Your task to perform on an android device: Add alienware area 51 to the cart on bestbuy.com, then select checkout. Image 0: 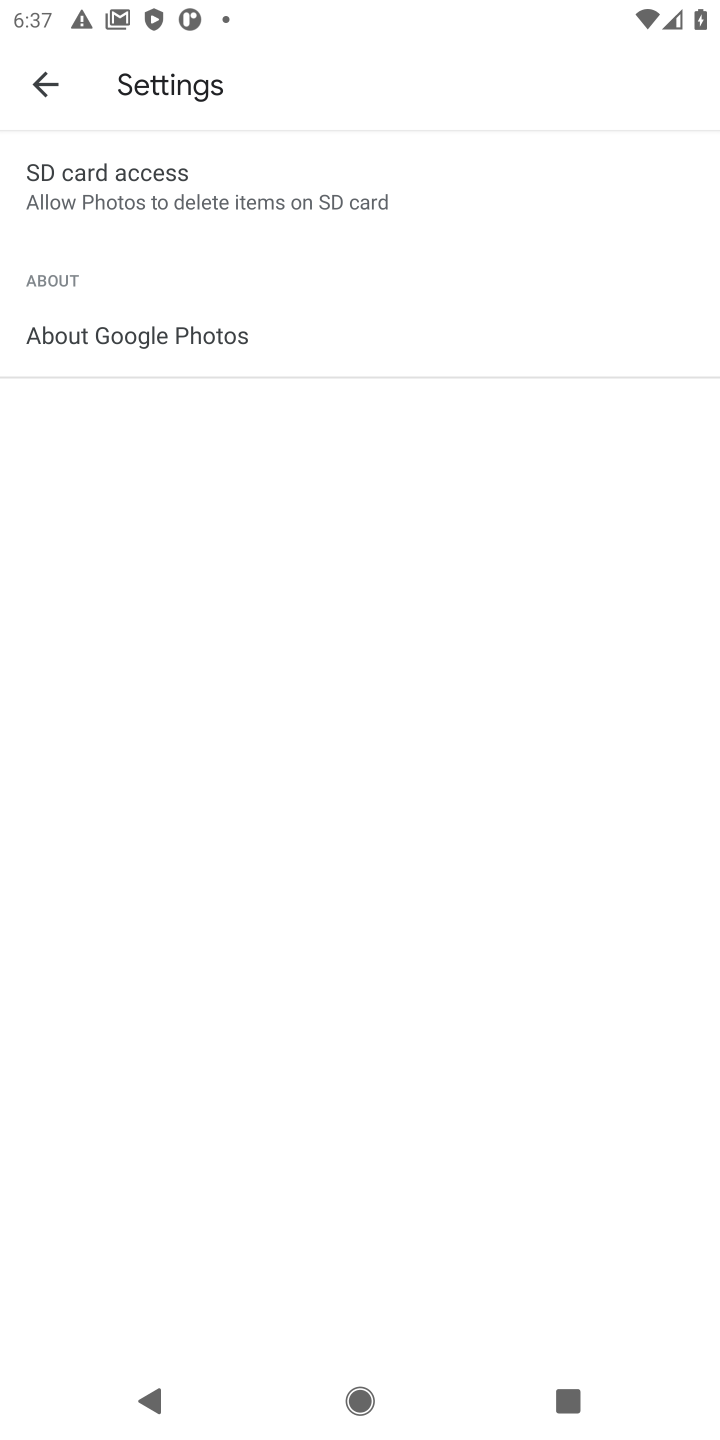
Step 0: press home button
Your task to perform on an android device: Add alienware area 51 to the cart on bestbuy.com, then select checkout. Image 1: 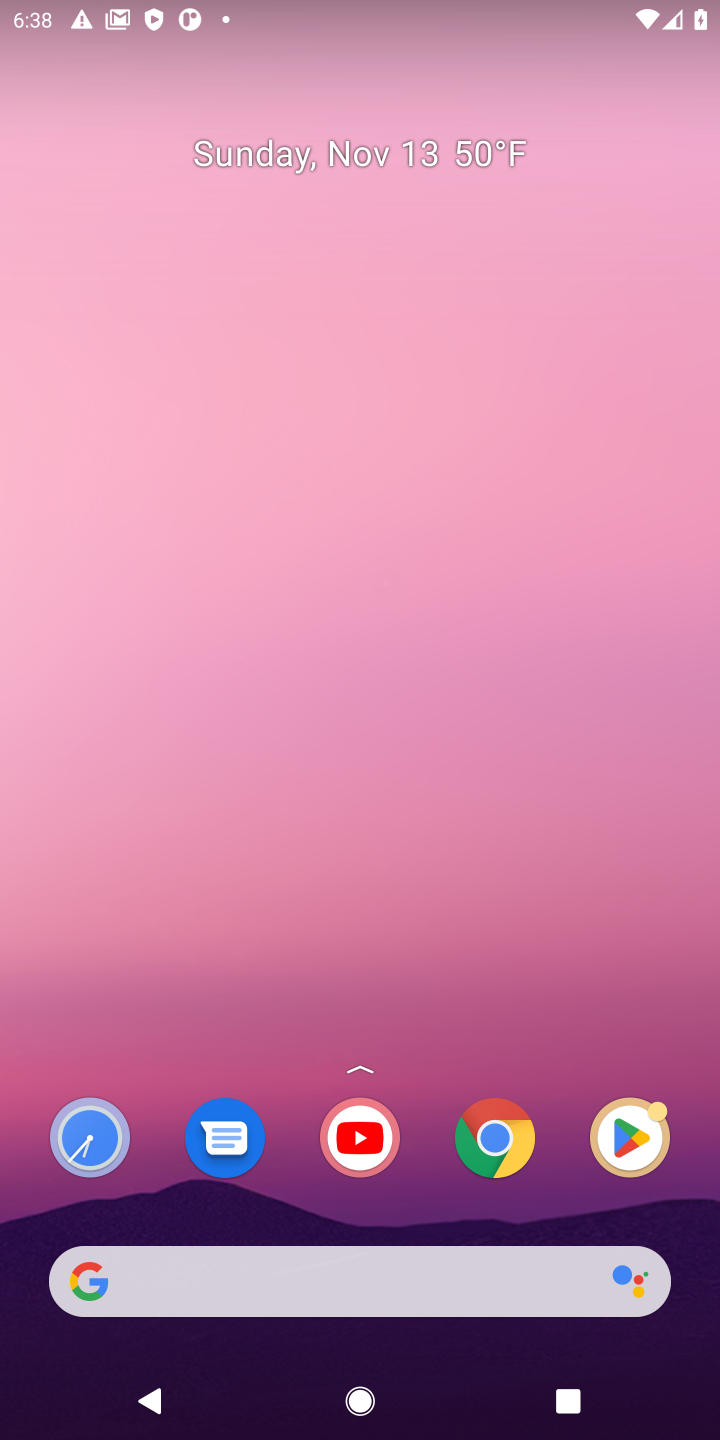
Step 1: drag from (184, 857) to (191, 263)
Your task to perform on an android device: Add alienware area 51 to the cart on bestbuy.com, then select checkout. Image 2: 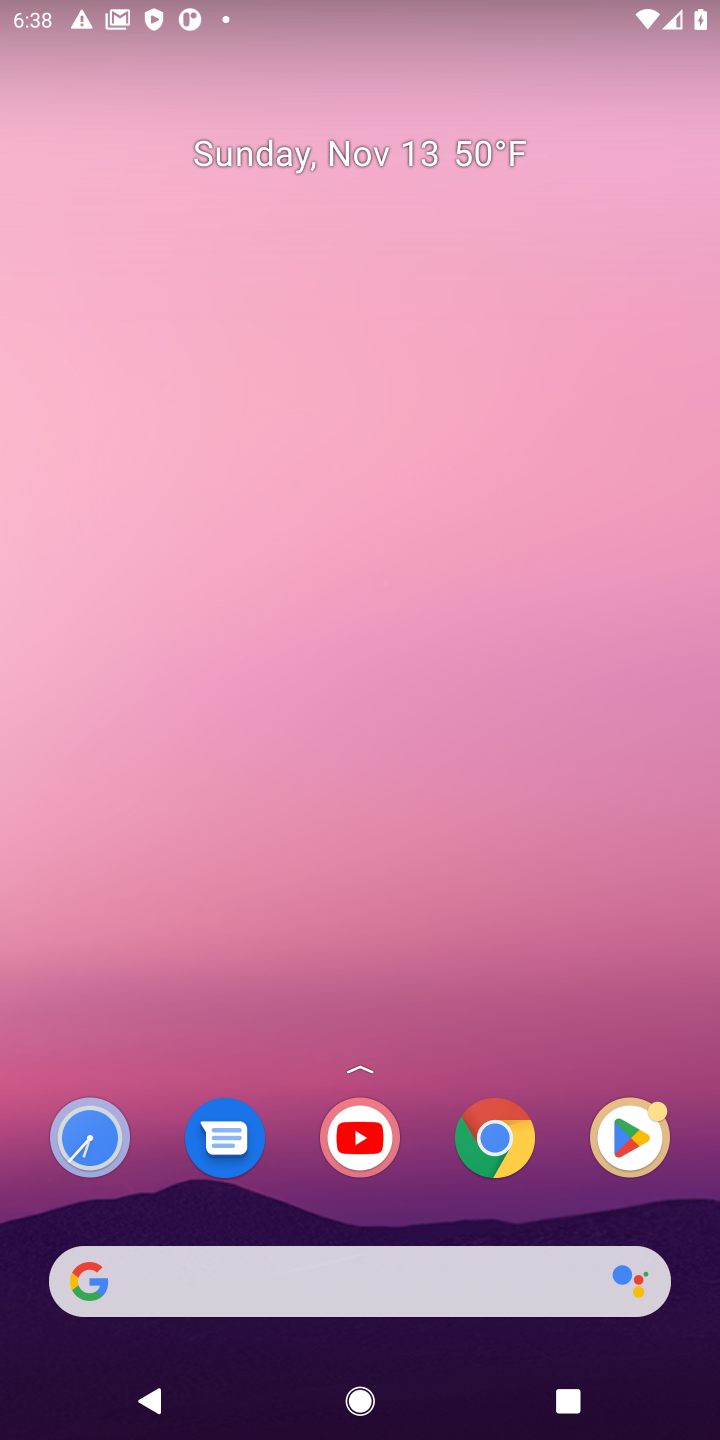
Step 2: drag from (416, 990) to (443, 107)
Your task to perform on an android device: Add alienware area 51 to the cart on bestbuy.com, then select checkout. Image 3: 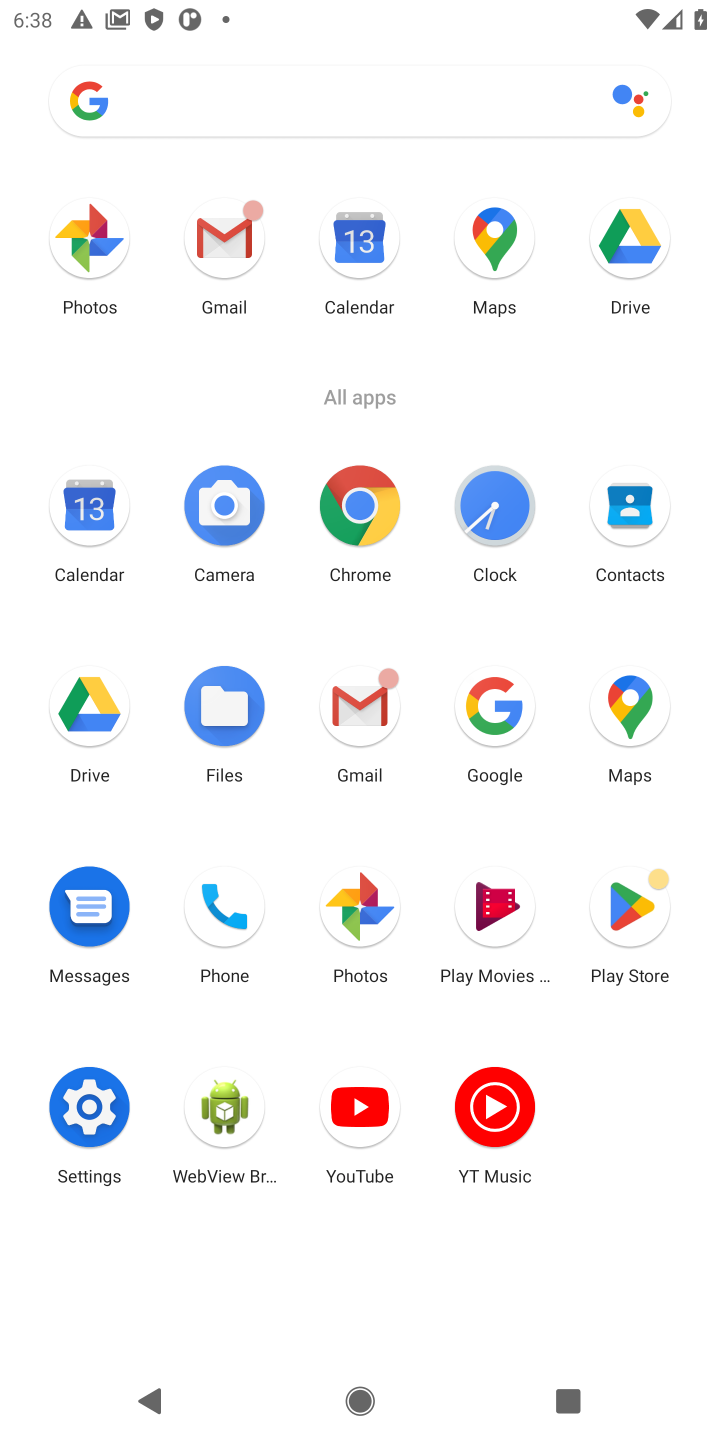
Step 3: click (340, 492)
Your task to perform on an android device: Add alienware area 51 to the cart on bestbuy.com, then select checkout. Image 4: 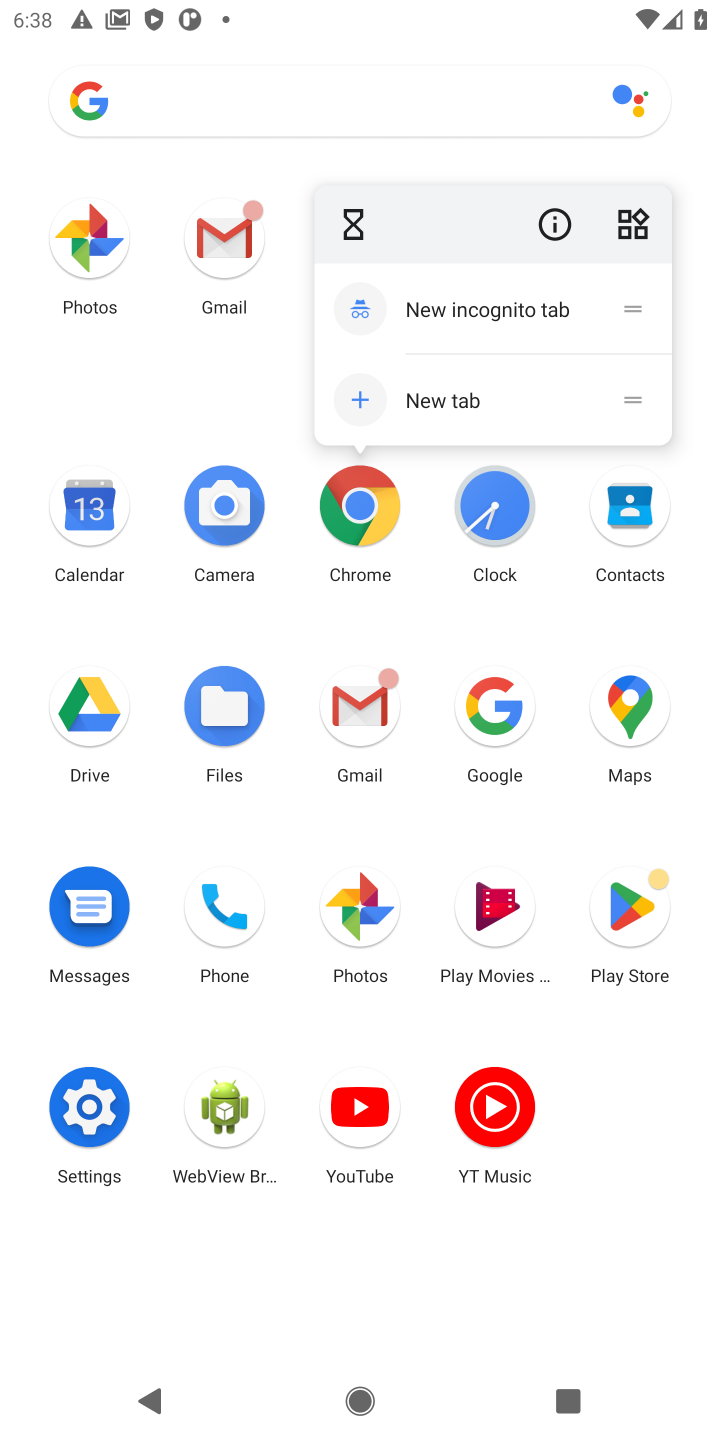
Step 4: click (366, 502)
Your task to perform on an android device: Add alienware area 51 to the cart on bestbuy.com, then select checkout. Image 5: 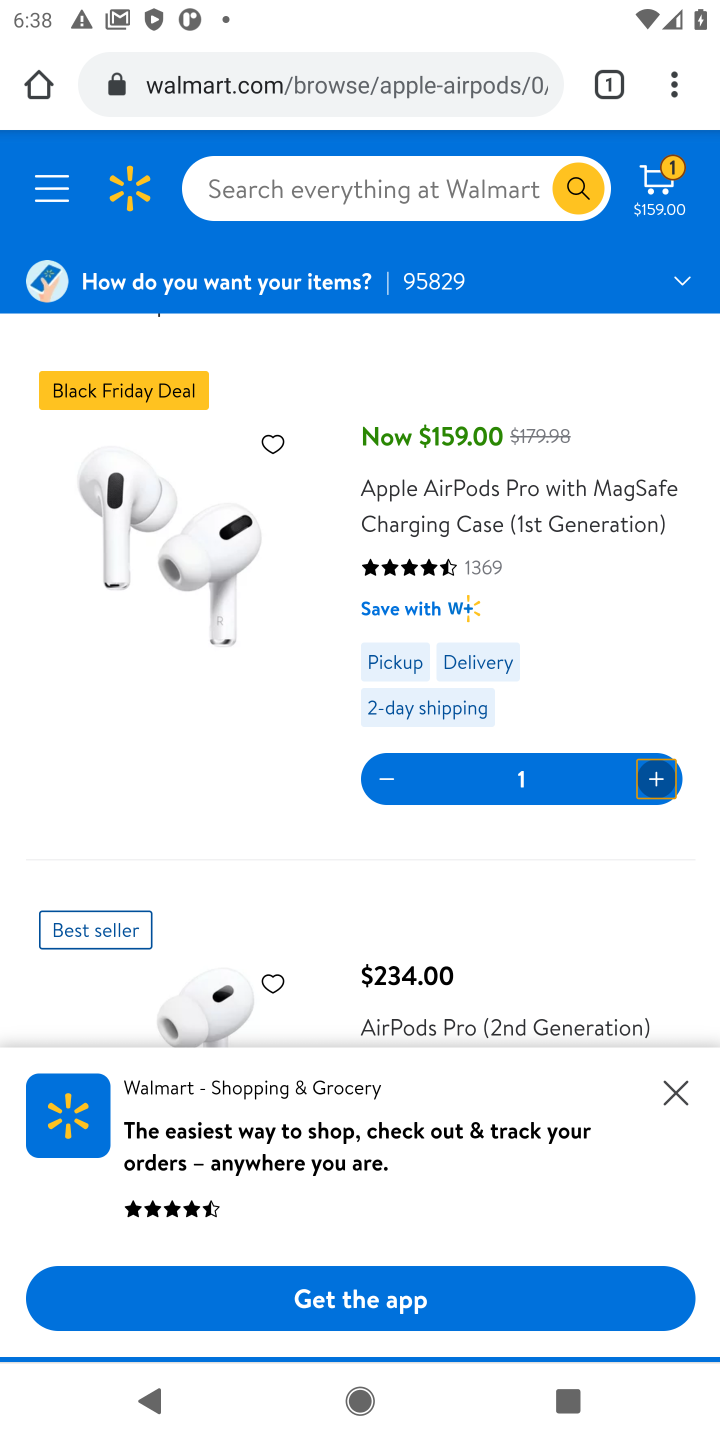
Step 5: click (323, 82)
Your task to perform on an android device: Add alienware area 51 to the cart on bestbuy.com, then select checkout. Image 6: 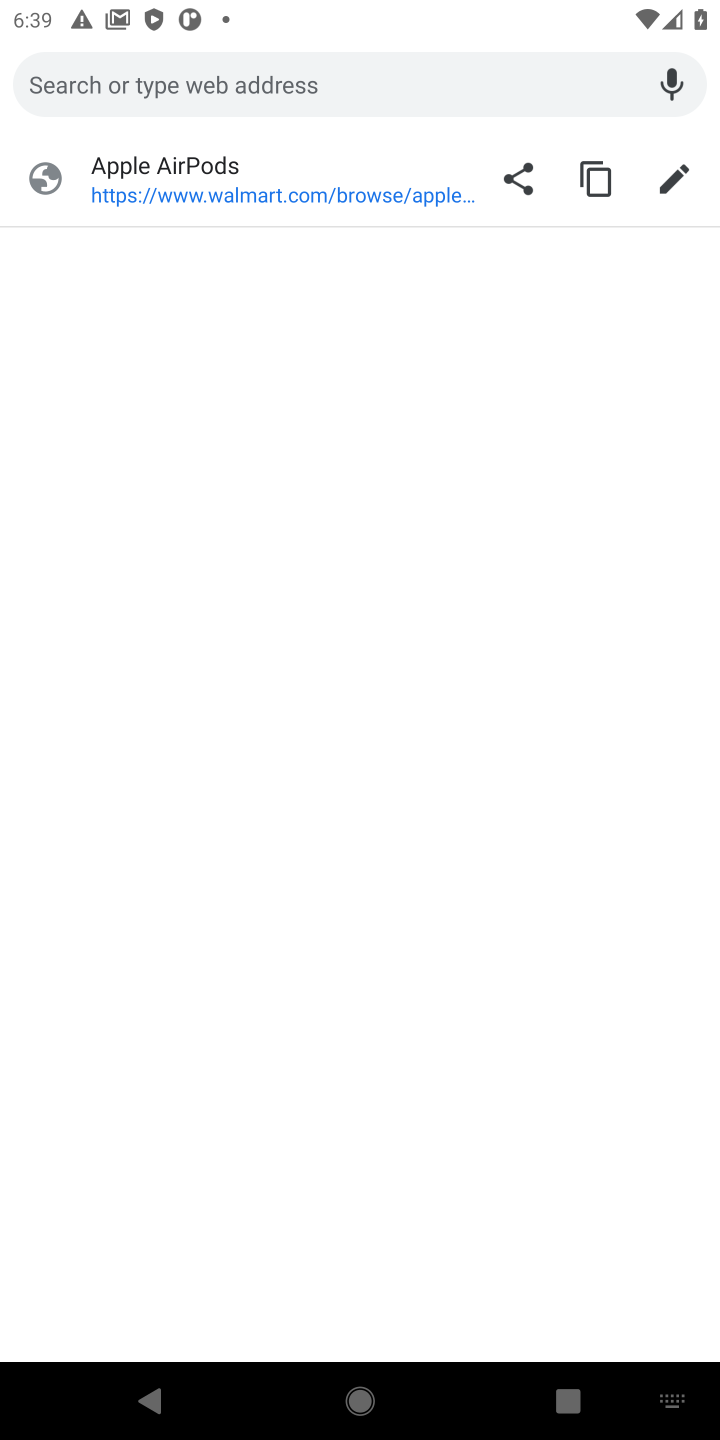
Step 6: type "bestbuy.com"
Your task to perform on an android device: Add alienware area 51 to the cart on bestbuy.com, then select checkout. Image 7: 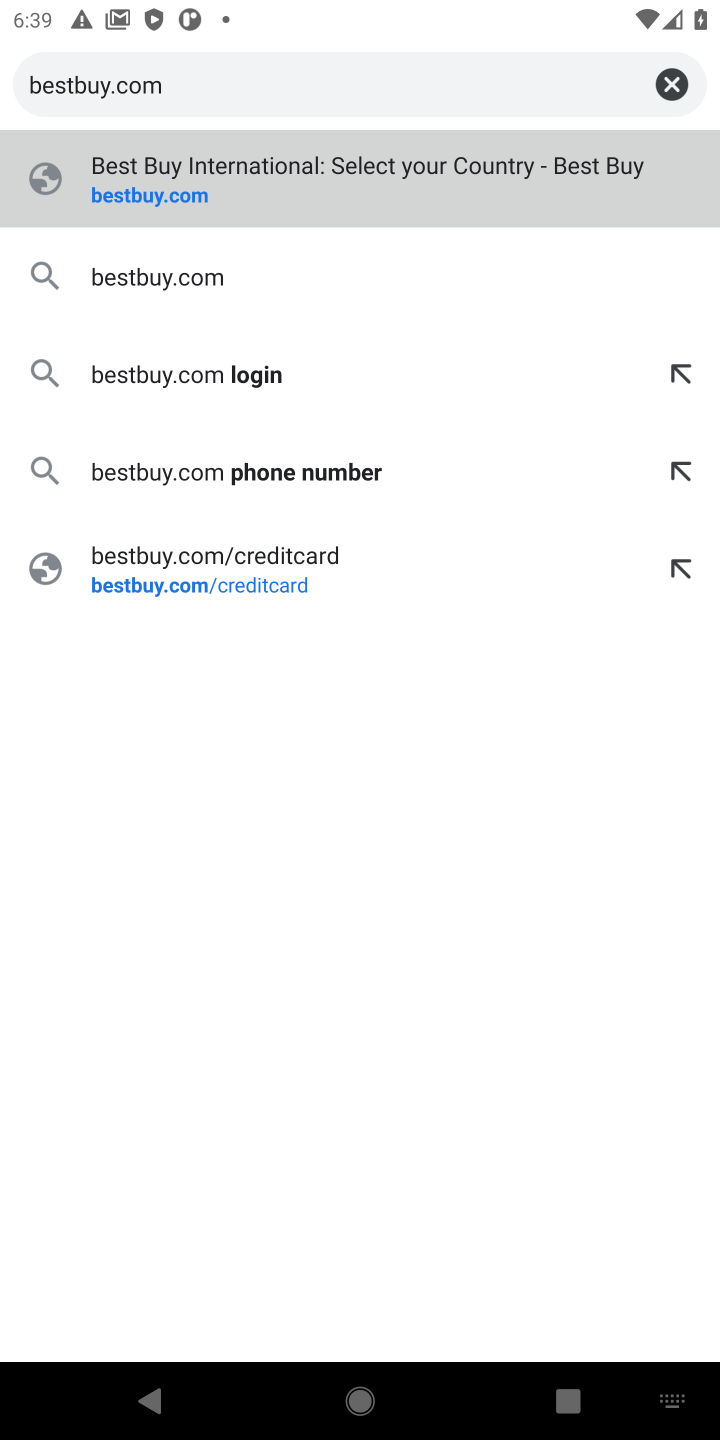
Step 7: press enter
Your task to perform on an android device: Add alienware area 51 to the cart on bestbuy.com, then select checkout. Image 8: 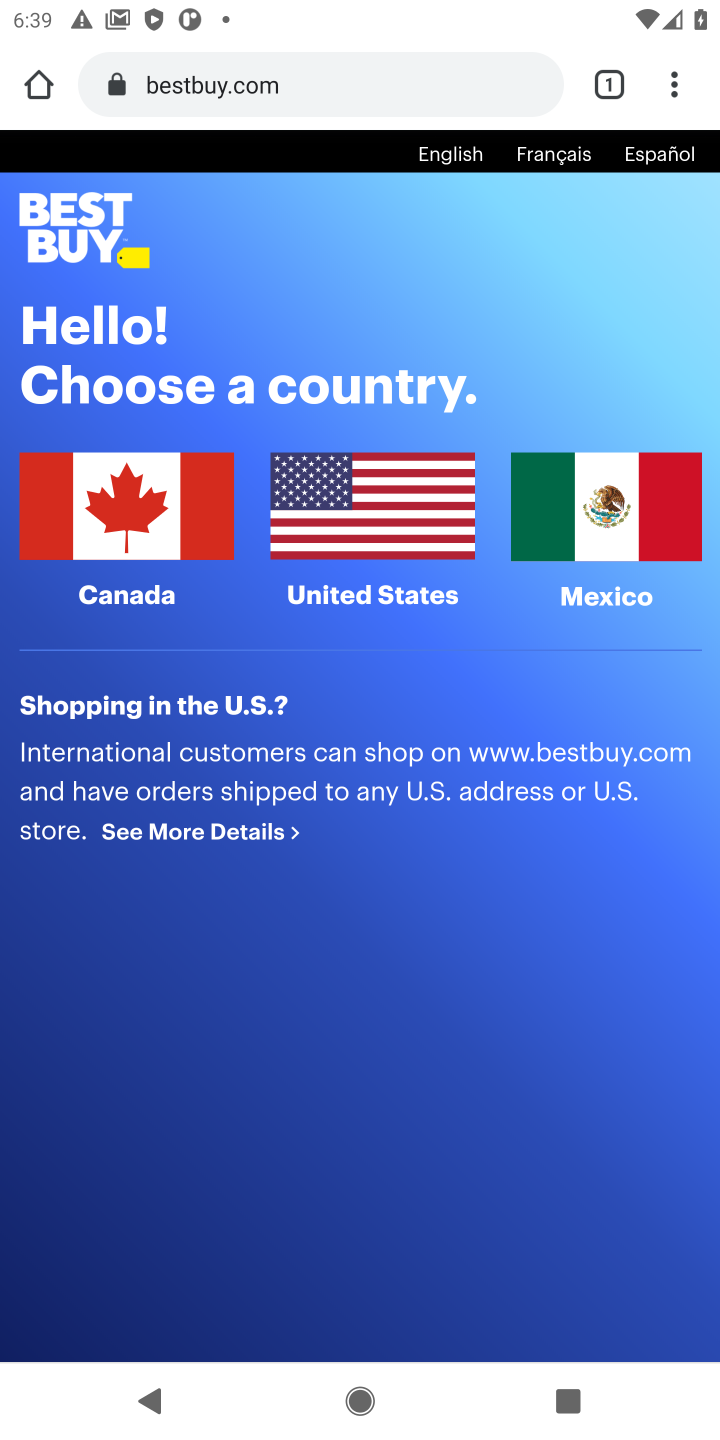
Step 8: click (138, 535)
Your task to perform on an android device: Add alienware area 51 to the cart on bestbuy.com, then select checkout. Image 9: 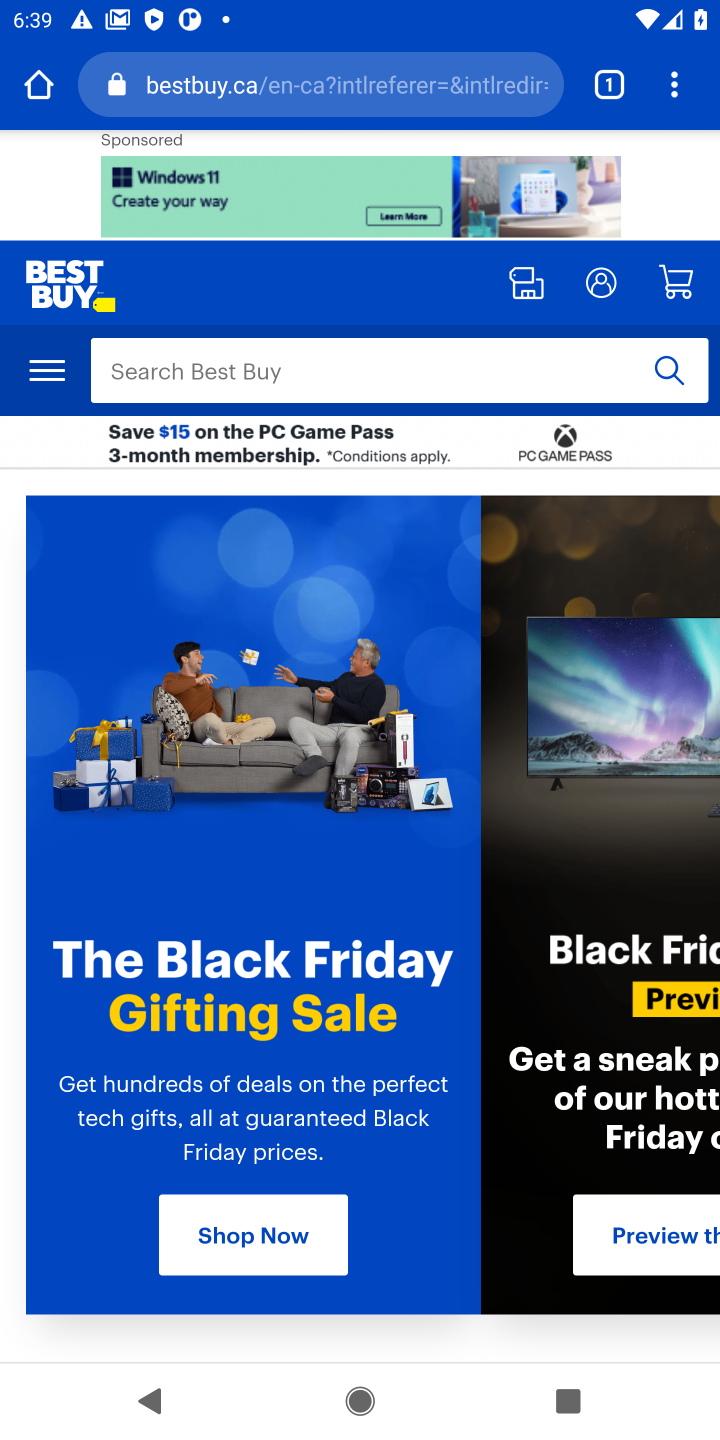
Step 9: click (299, 360)
Your task to perform on an android device: Add alienware area 51 to the cart on bestbuy.com, then select checkout. Image 10: 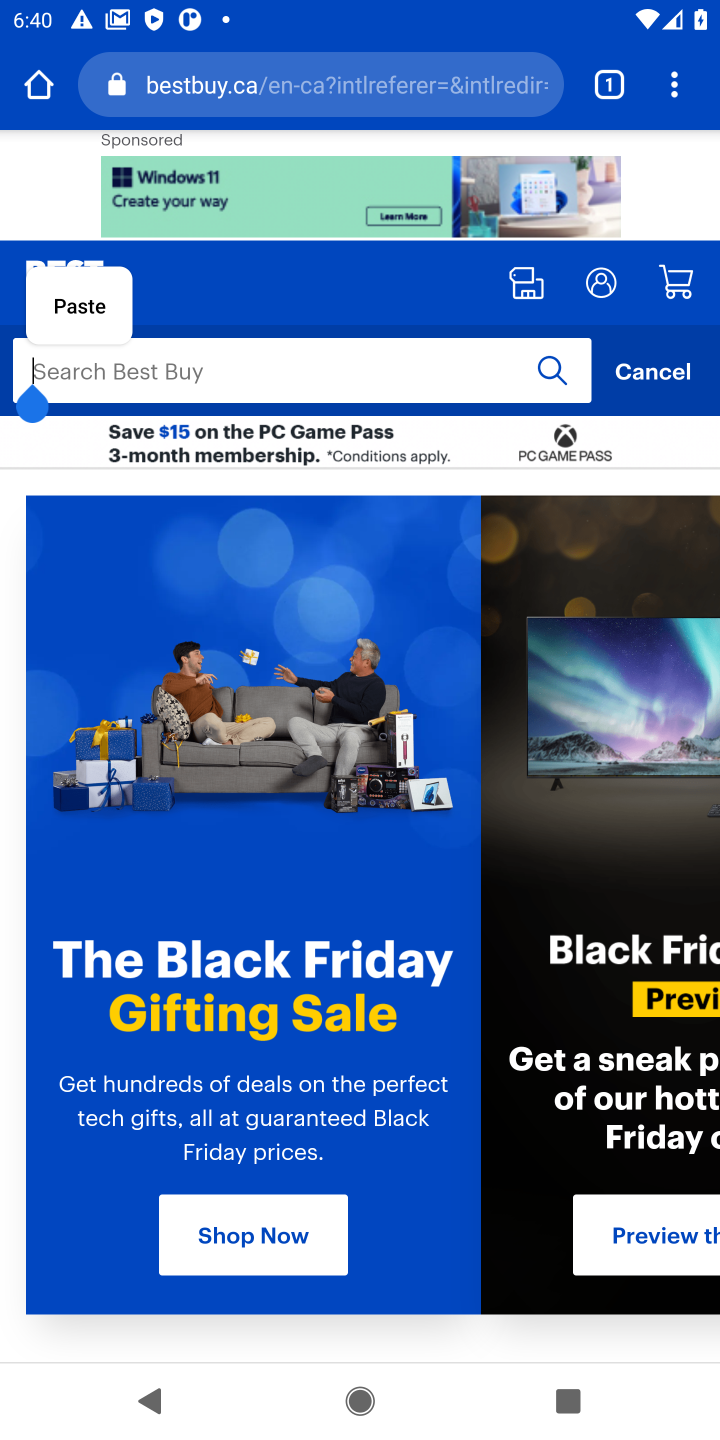
Step 10: click (74, 313)
Your task to perform on an android device: Add alienware area 51 to the cart on bestbuy.com, then select checkout. Image 11: 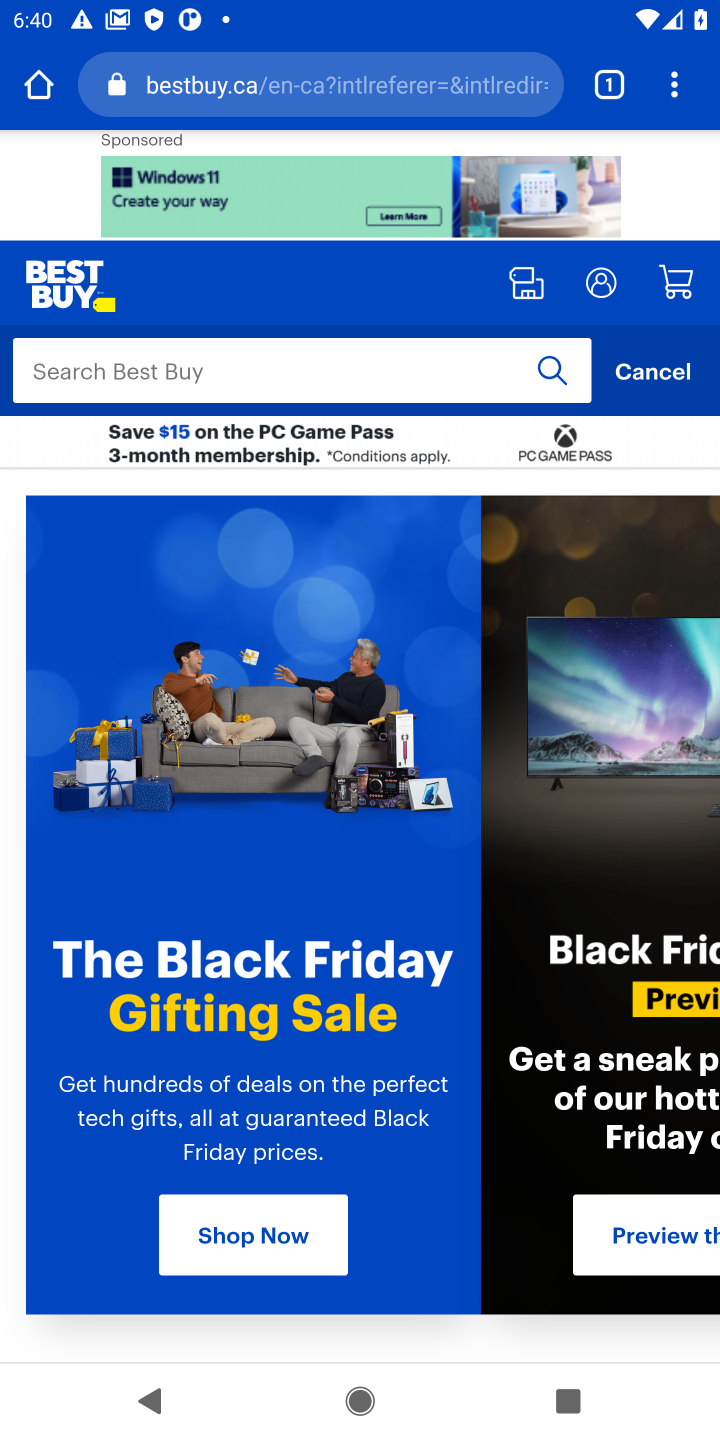
Step 11: type "alienware area 51 "
Your task to perform on an android device: Add alienware area 51 to the cart on bestbuy.com, then select checkout. Image 12: 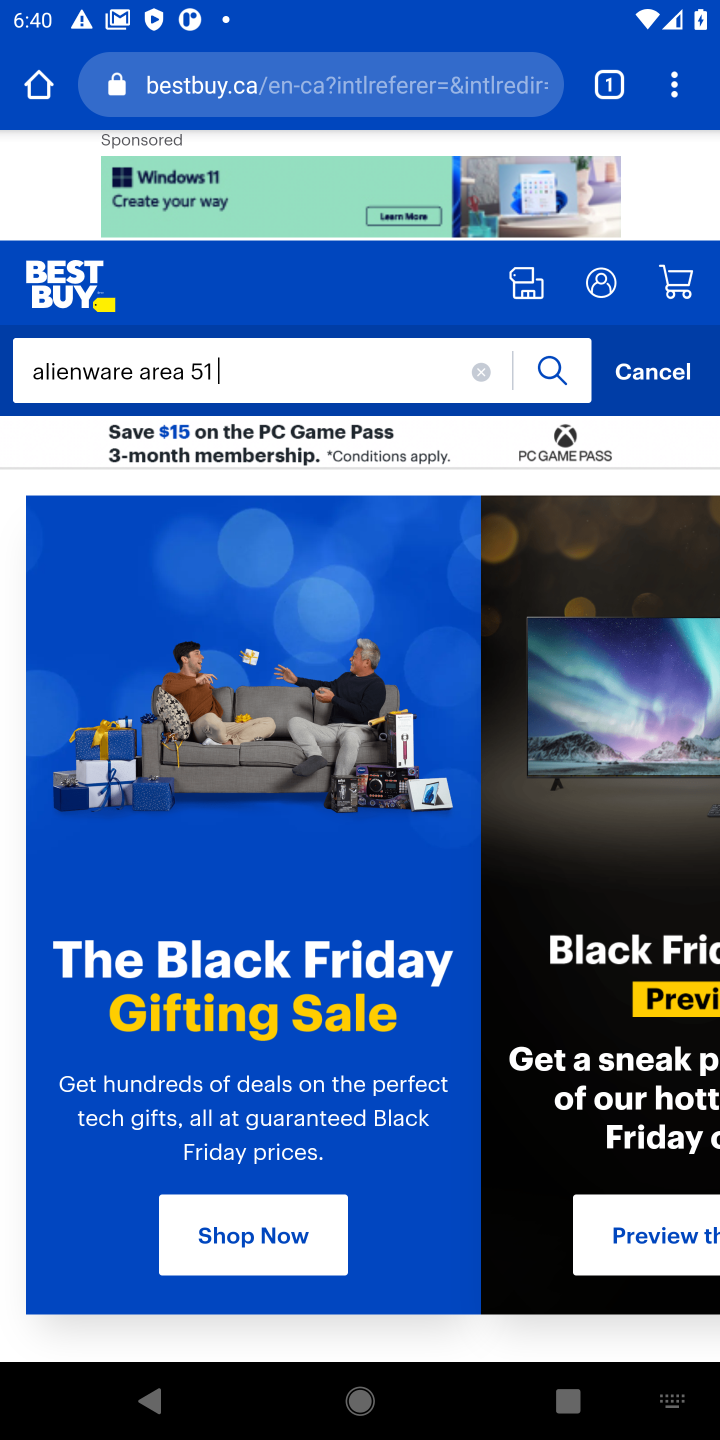
Step 12: press enter
Your task to perform on an android device: Add alienware area 51 to the cart on bestbuy.com, then select checkout. Image 13: 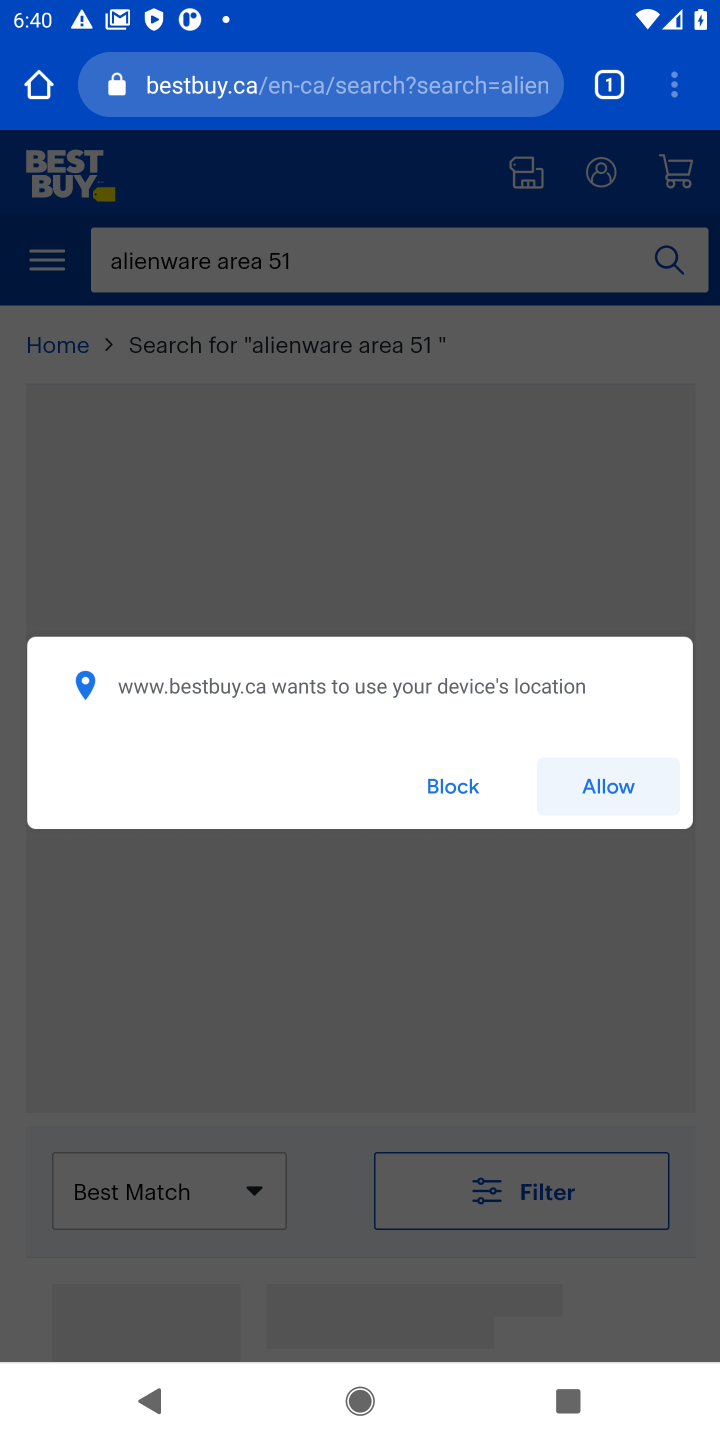
Step 13: click (606, 799)
Your task to perform on an android device: Add alienware area 51 to the cart on bestbuy.com, then select checkout. Image 14: 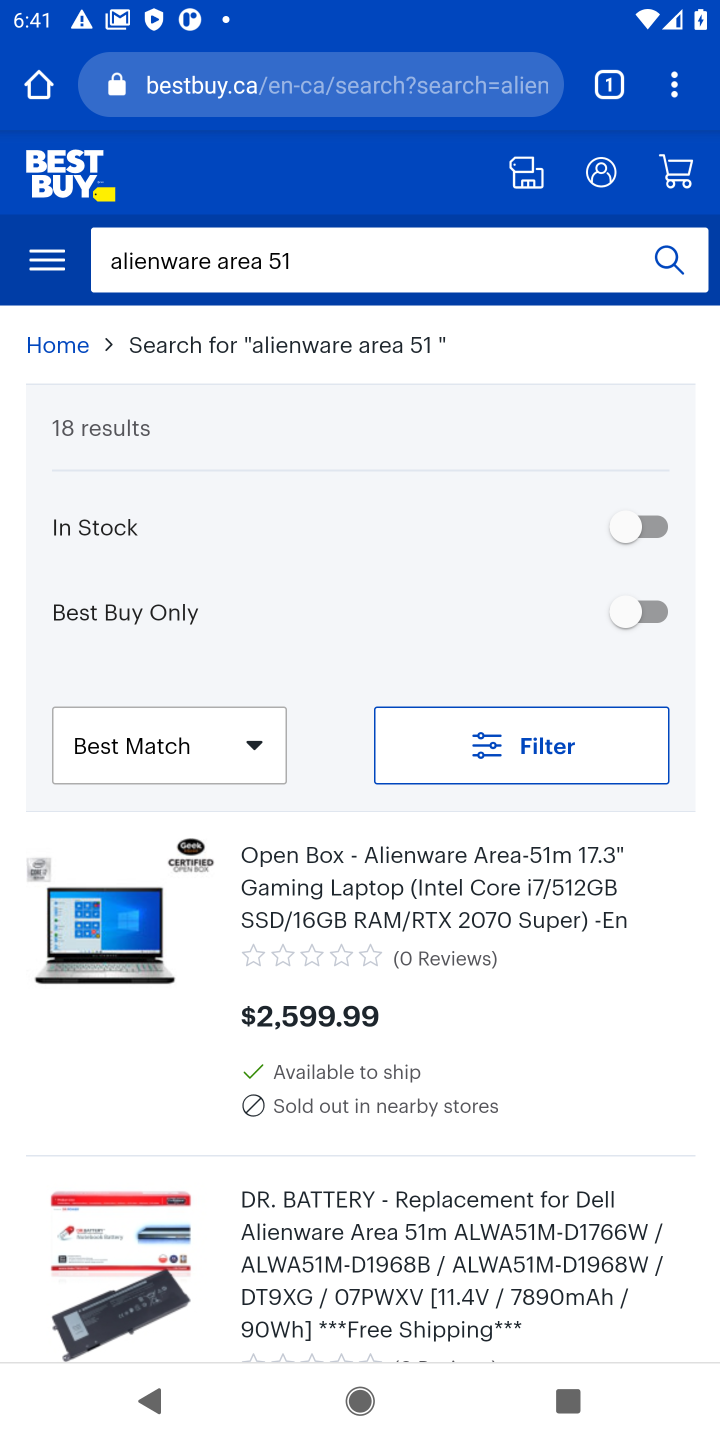
Step 14: drag from (401, 1176) to (309, 786)
Your task to perform on an android device: Add alienware area 51 to the cart on bestbuy.com, then select checkout. Image 15: 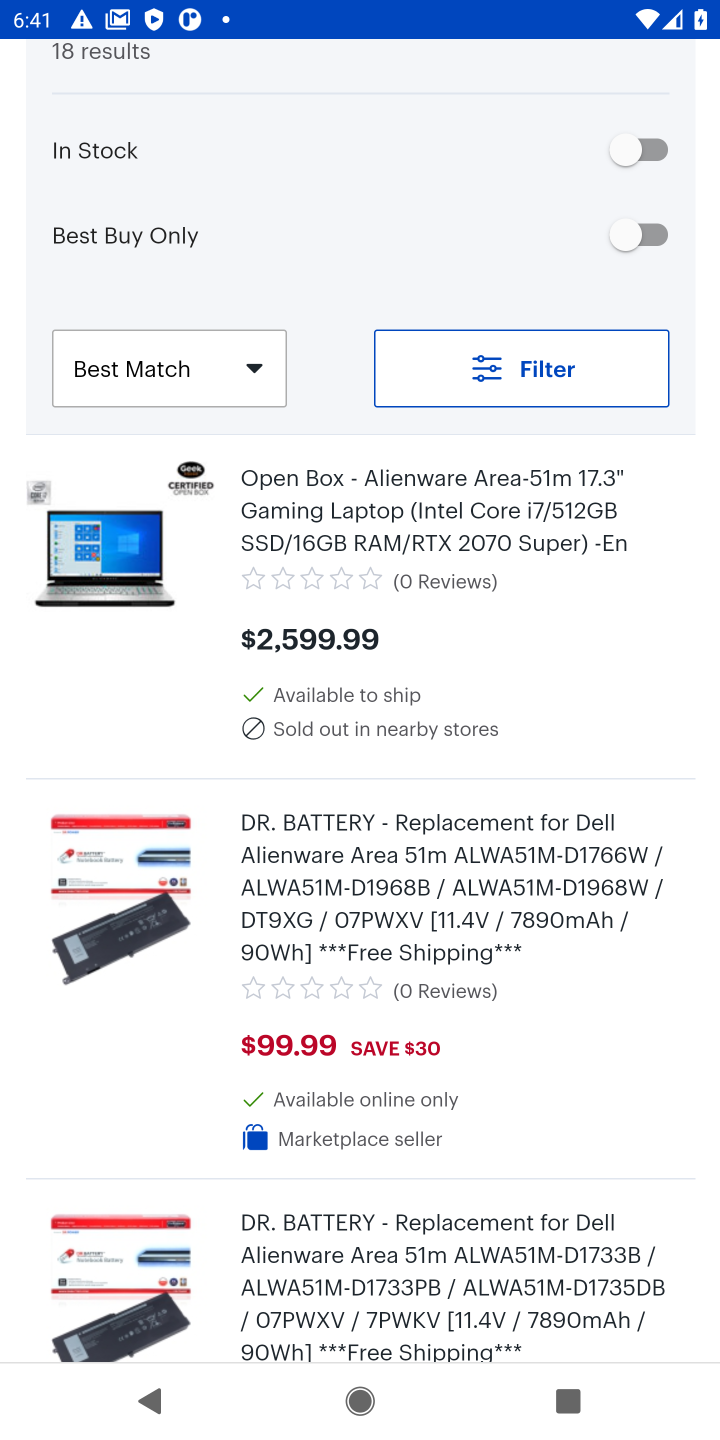
Step 15: click (348, 551)
Your task to perform on an android device: Add alienware area 51 to the cart on bestbuy.com, then select checkout. Image 16: 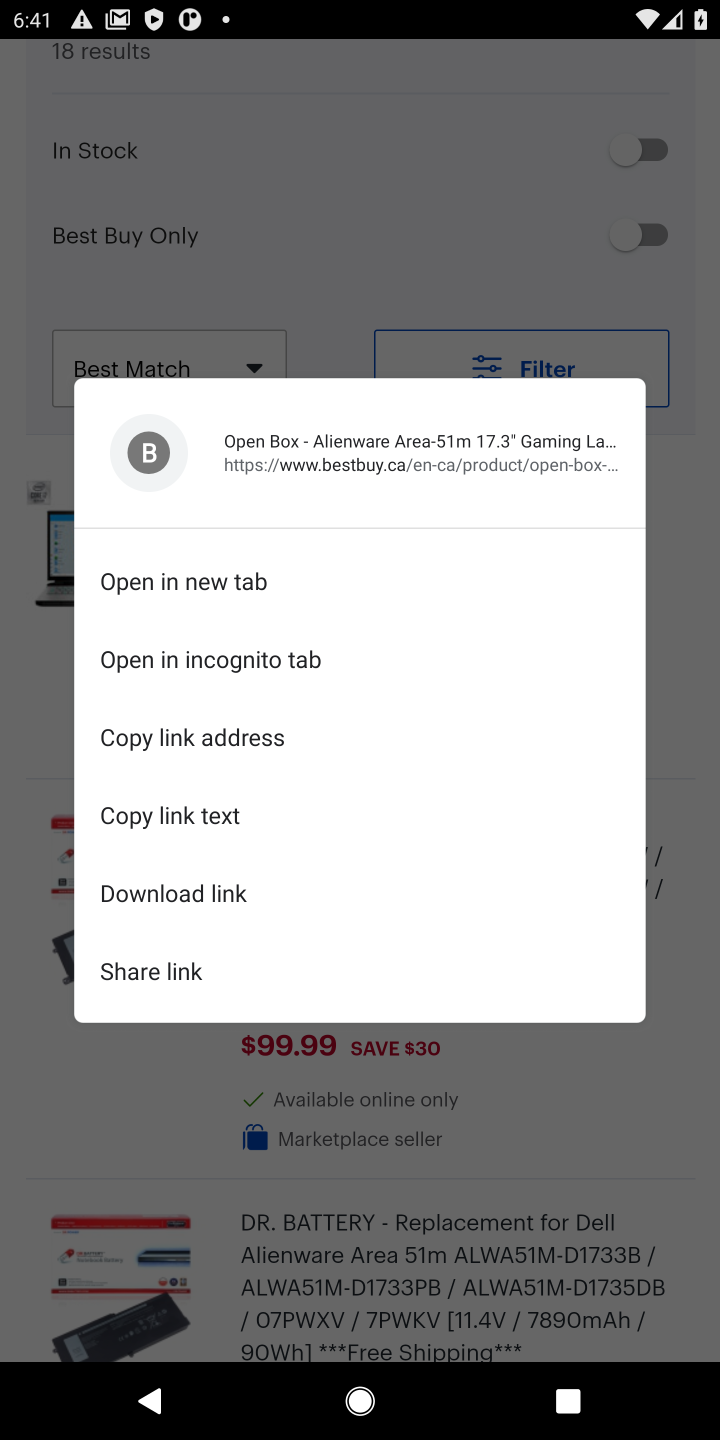
Step 16: click (274, 278)
Your task to perform on an android device: Add alienware area 51 to the cart on bestbuy.com, then select checkout. Image 17: 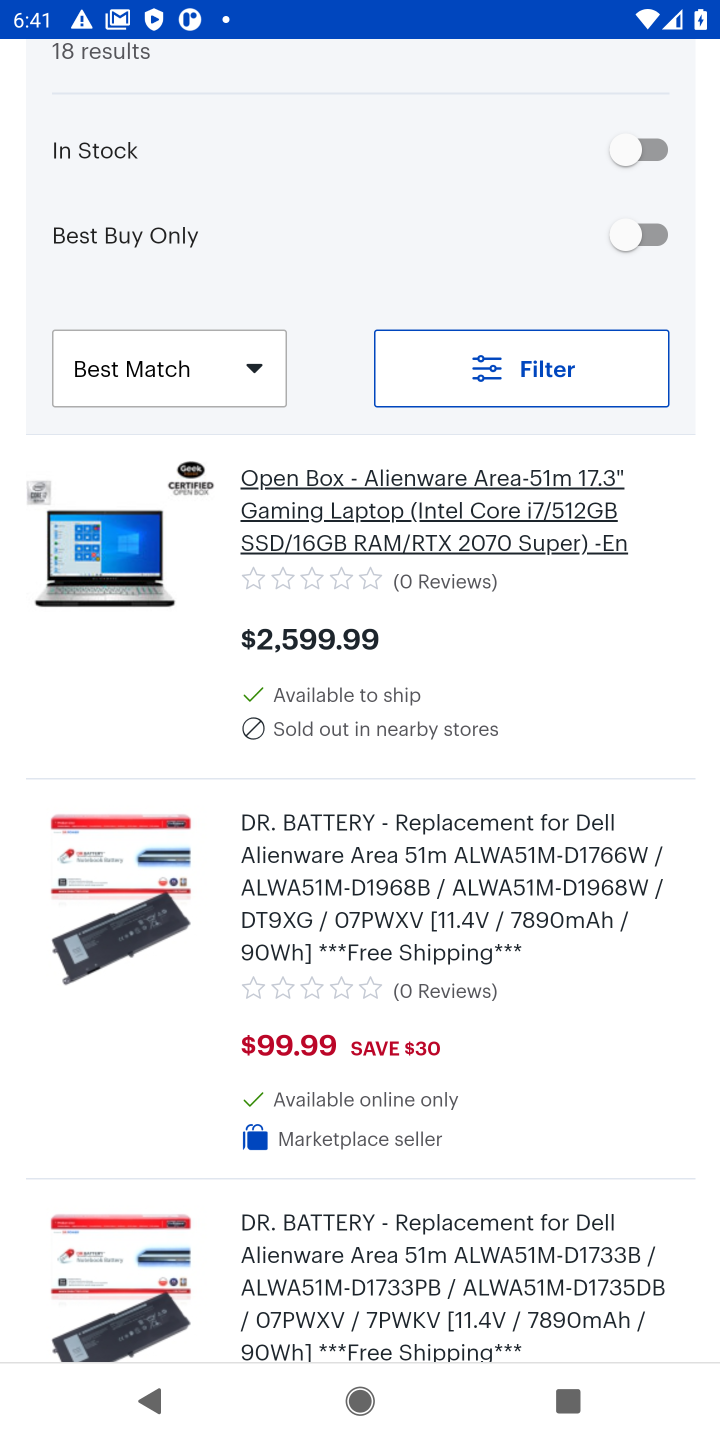
Step 17: click (398, 549)
Your task to perform on an android device: Add alienware area 51 to the cart on bestbuy.com, then select checkout. Image 18: 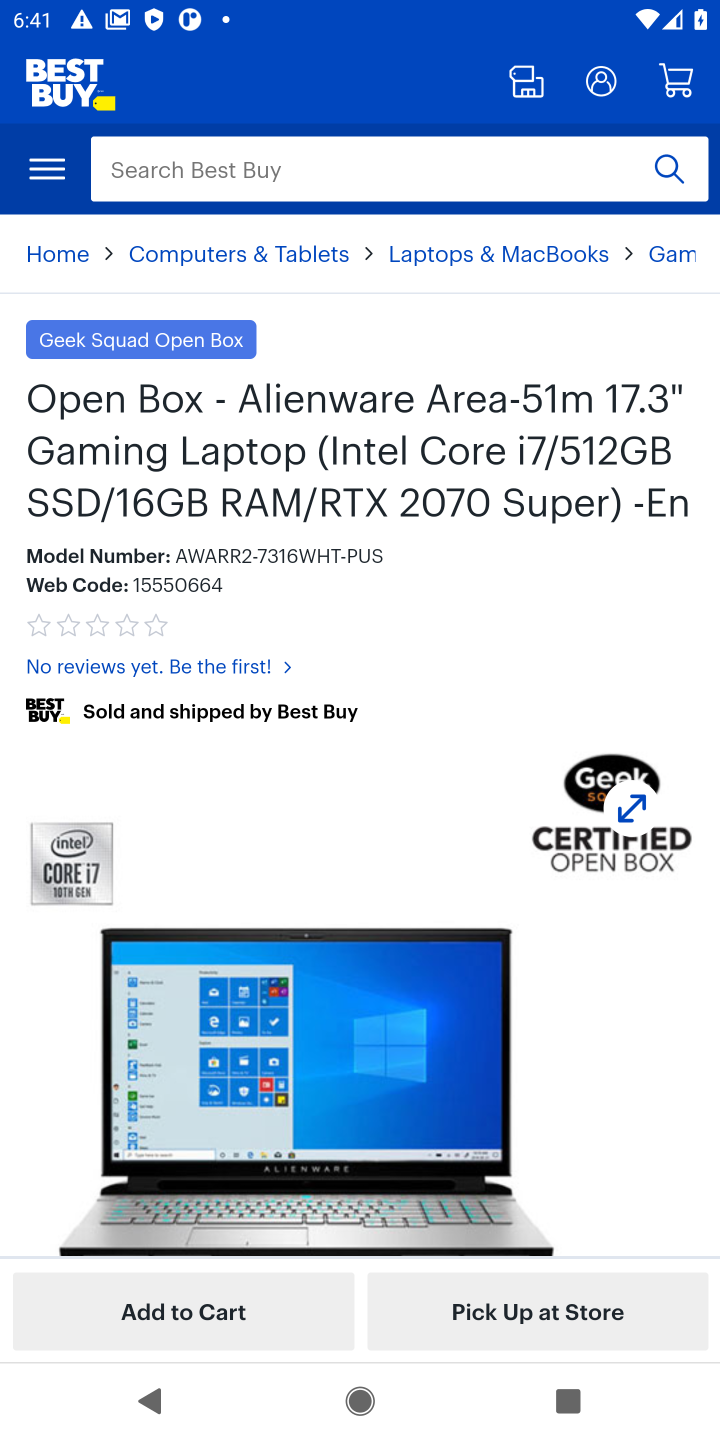
Step 18: drag from (464, 888) to (331, 383)
Your task to perform on an android device: Add alienware area 51 to the cart on bestbuy.com, then select checkout. Image 19: 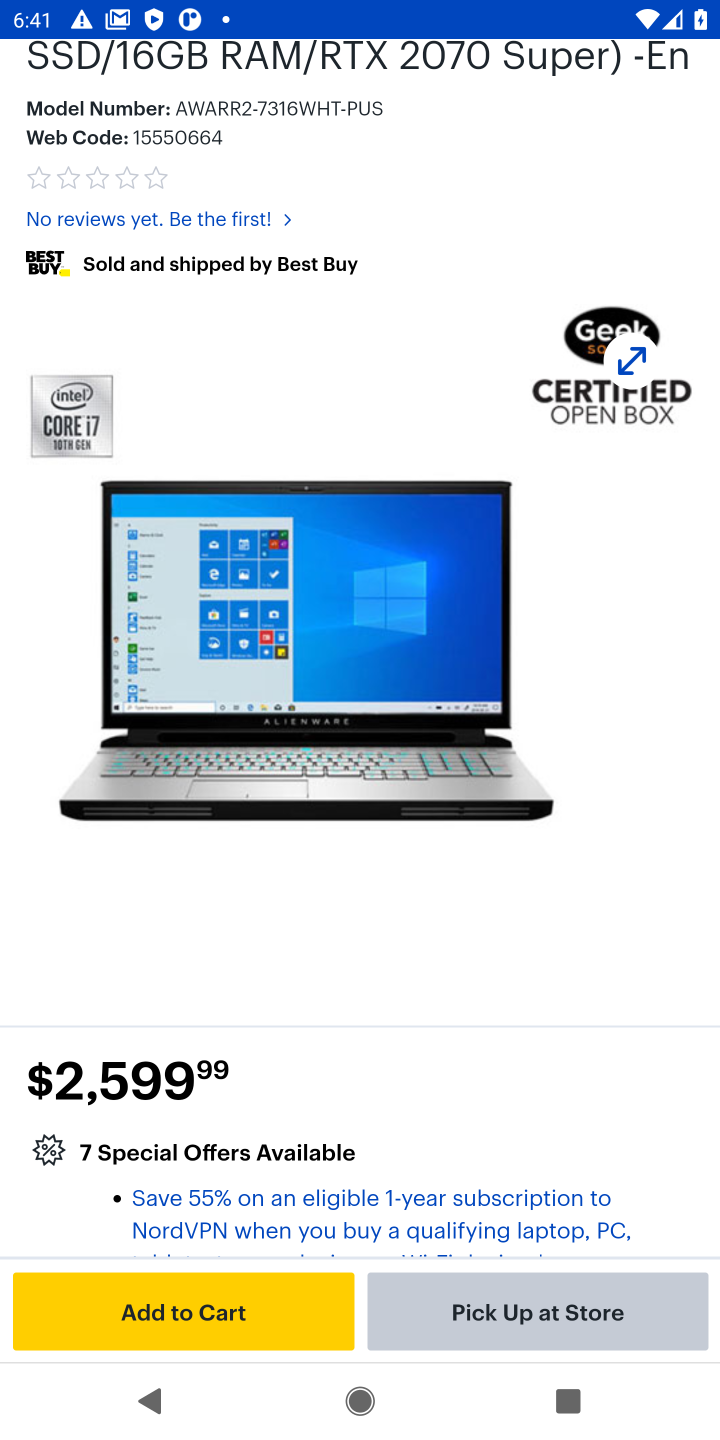
Step 19: drag from (510, 896) to (448, 494)
Your task to perform on an android device: Add alienware area 51 to the cart on bestbuy.com, then select checkout. Image 20: 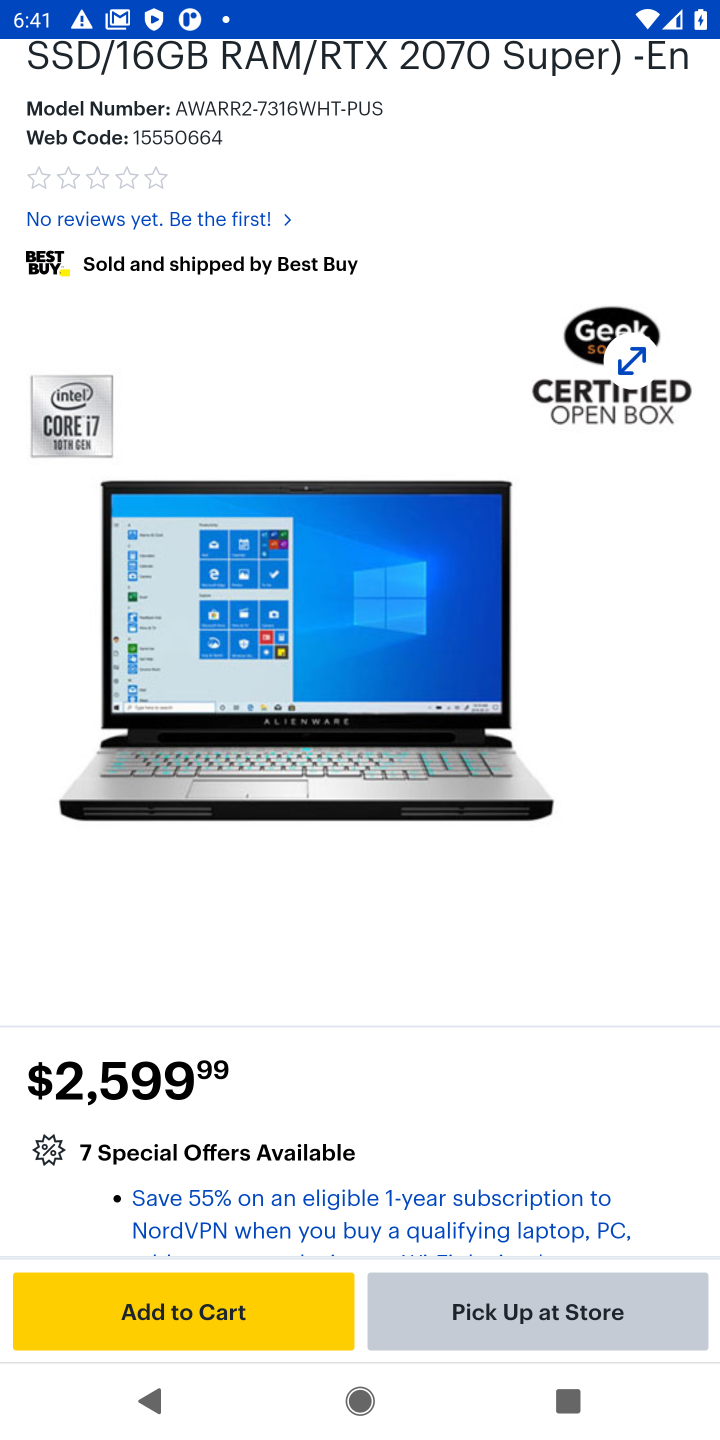
Step 20: click (245, 1312)
Your task to perform on an android device: Add alienware area 51 to the cart on bestbuy.com, then select checkout. Image 21: 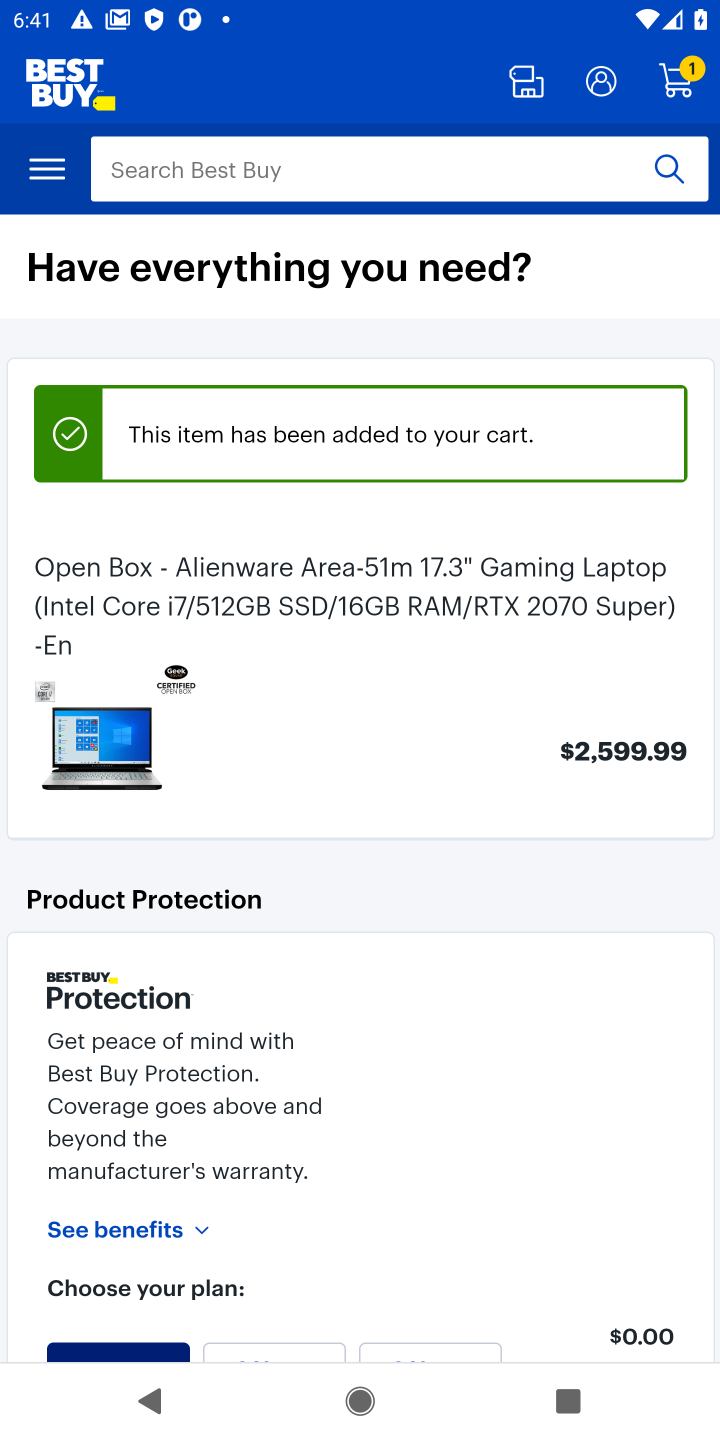
Step 21: drag from (245, 1252) to (208, 701)
Your task to perform on an android device: Add alienware area 51 to the cart on bestbuy.com, then select checkout. Image 22: 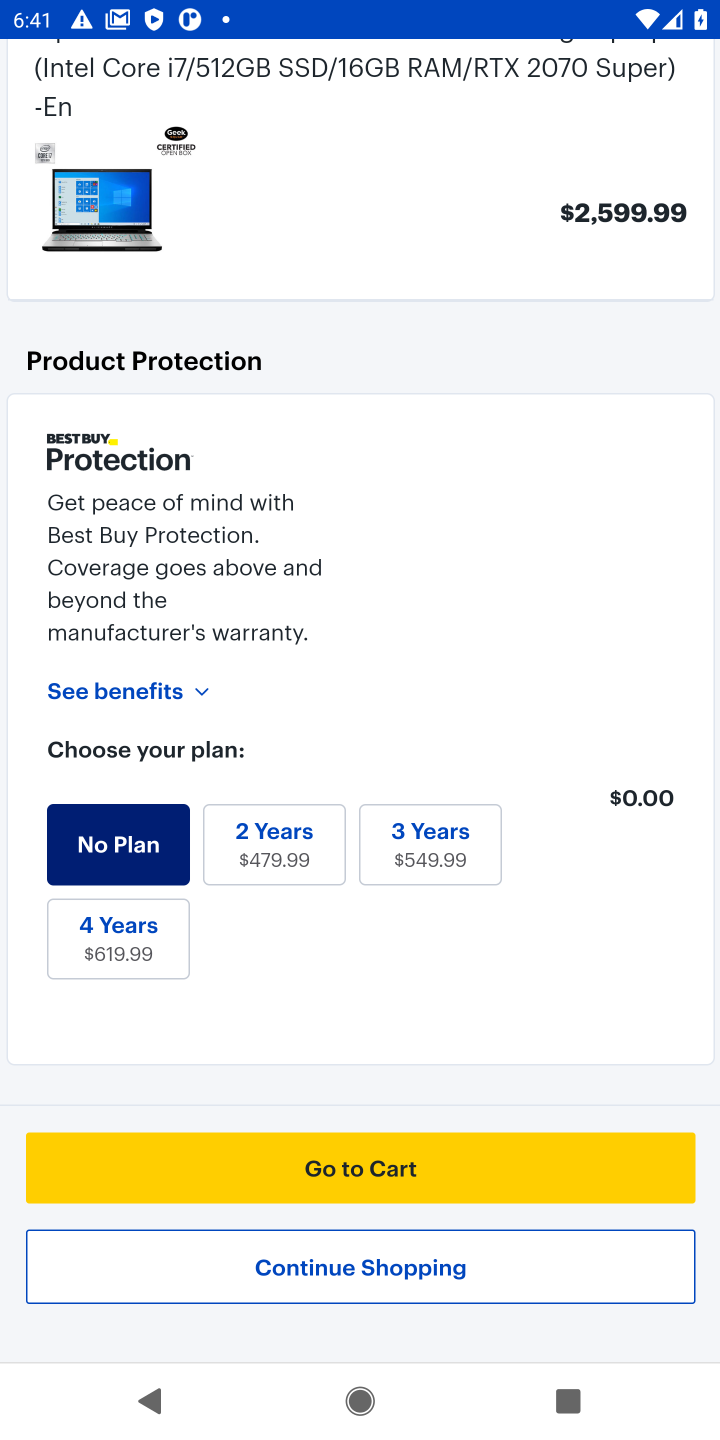
Step 22: click (374, 1153)
Your task to perform on an android device: Add alienware area 51 to the cart on bestbuy.com, then select checkout. Image 23: 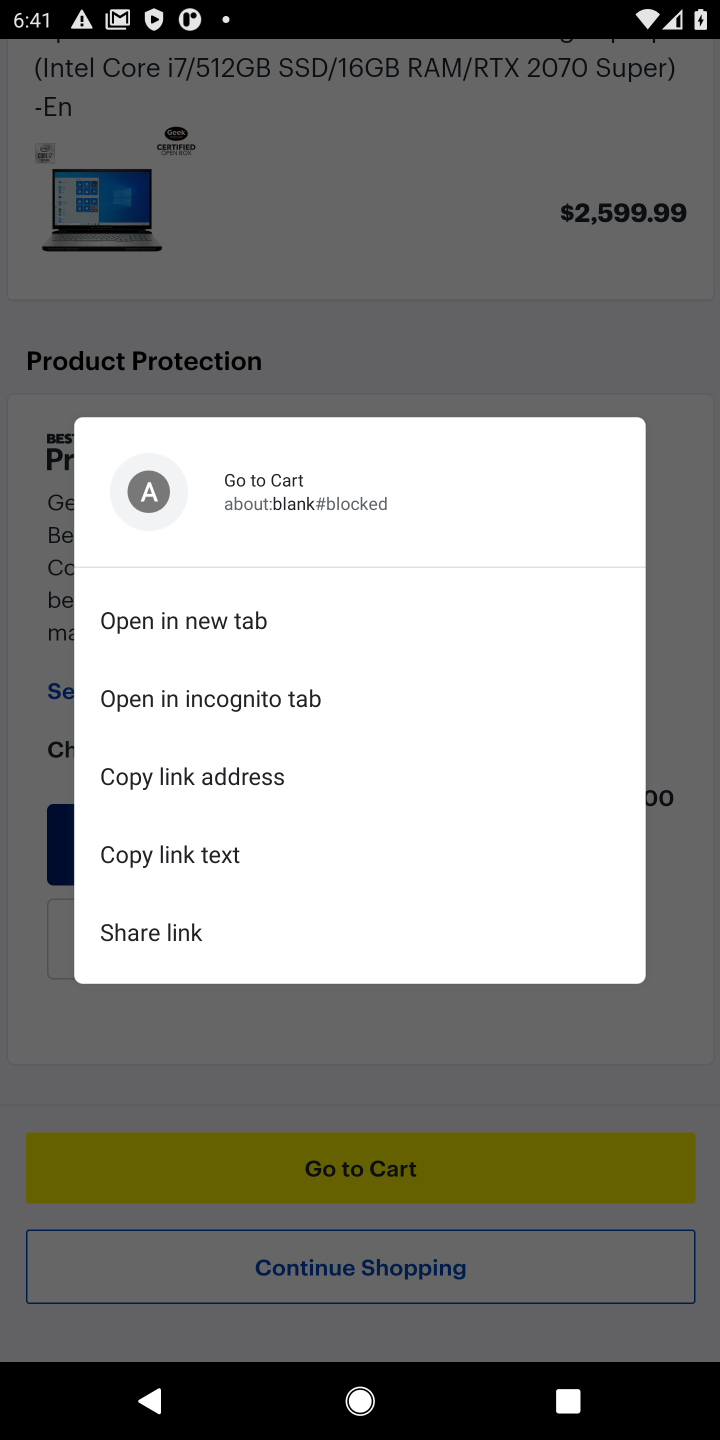
Step 23: click (218, 612)
Your task to perform on an android device: Add alienware area 51 to the cart on bestbuy.com, then select checkout. Image 24: 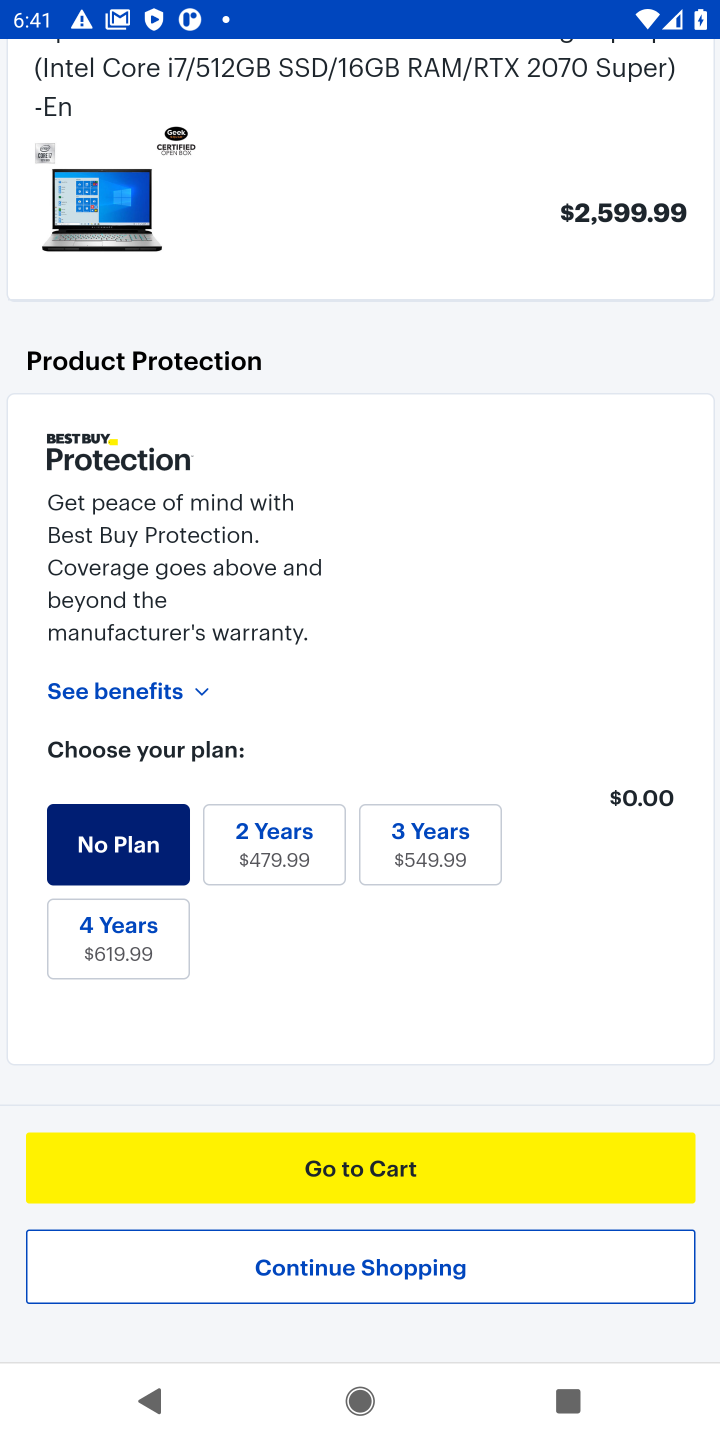
Step 24: click (404, 1159)
Your task to perform on an android device: Add alienware area 51 to the cart on bestbuy.com, then select checkout. Image 25: 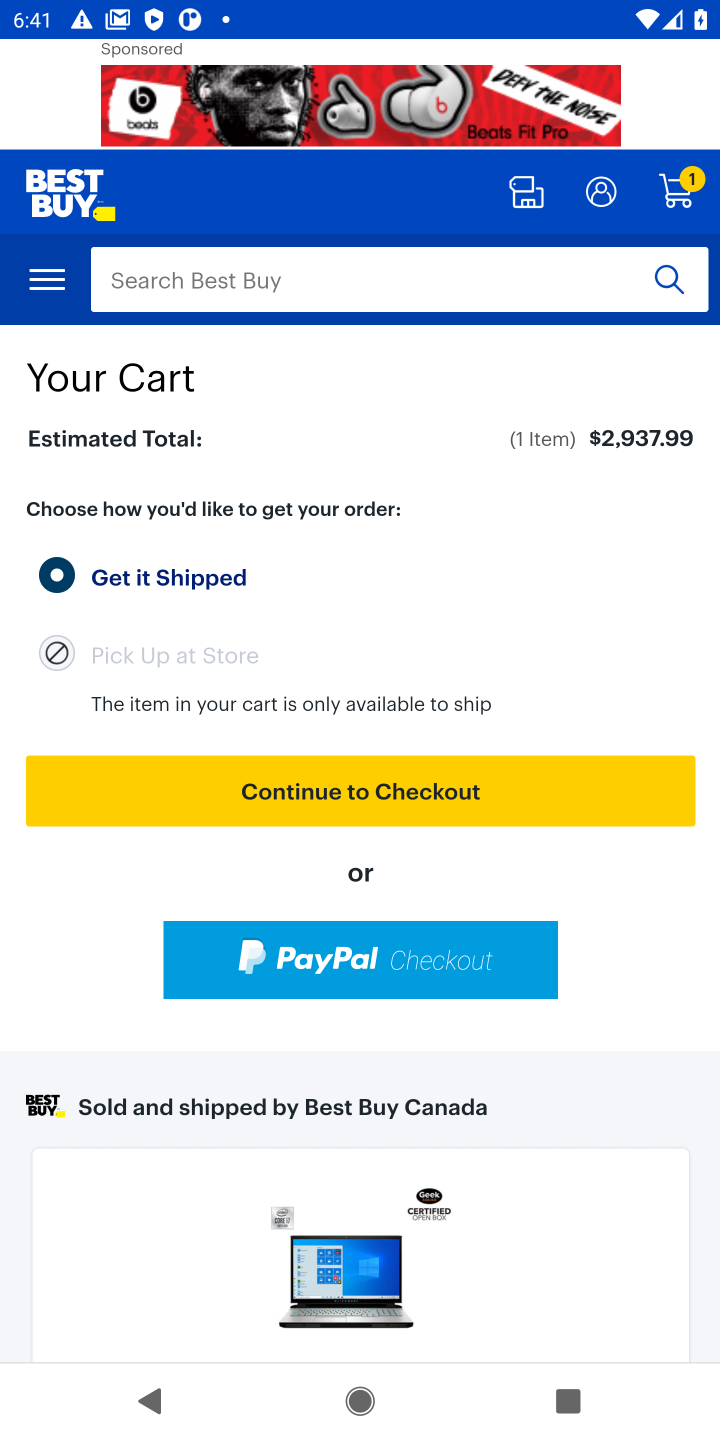
Step 25: click (412, 815)
Your task to perform on an android device: Add alienware area 51 to the cart on bestbuy.com, then select checkout. Image 26: 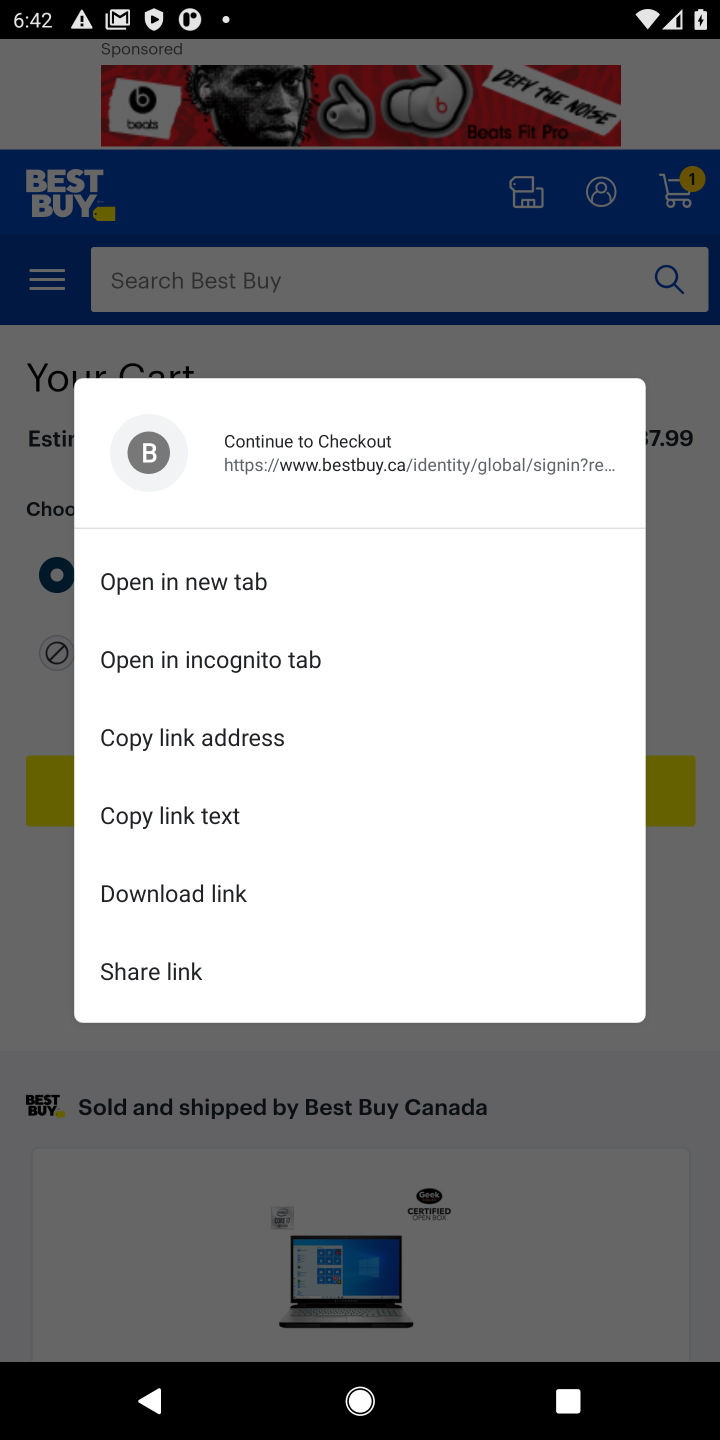
Step 26: task complete